Your task to perform on an android device: When is my next appointment? Image 0: 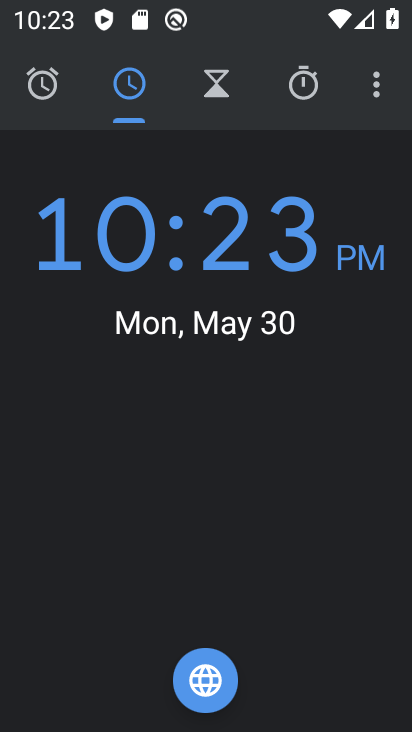
Step 0: press home button
Your task to perform on an android device: When is my next appointment? Image 1: 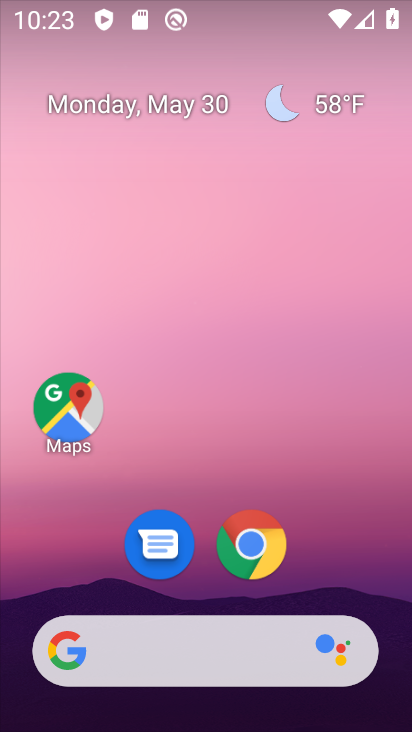
Step 1: drag from (357, 575) to (195, 90)
Your task to perform on an android device: When is my next appointment? Image 2: 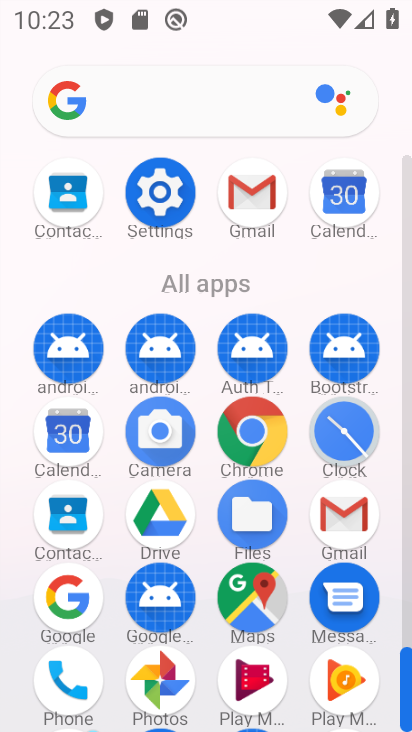
Step 2: click (359, 199)
Your task to perform on an android device: When is my next appointment? Image 3: 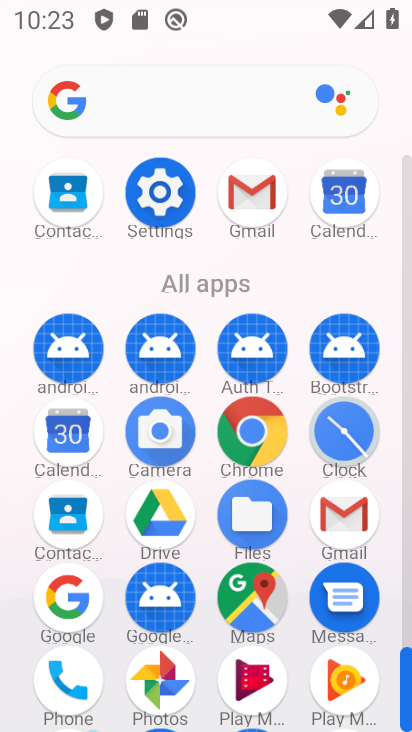
Step 3: click (359, 199)
Your task to perform on an android device: When is my next appointment? Image 4: 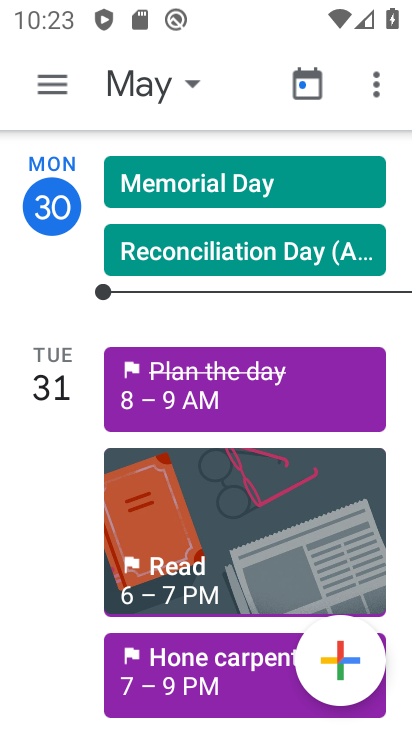
Step 4: task complete